Your task to perform on an android device: open chrome and create a bookmark for the current page Image 0: 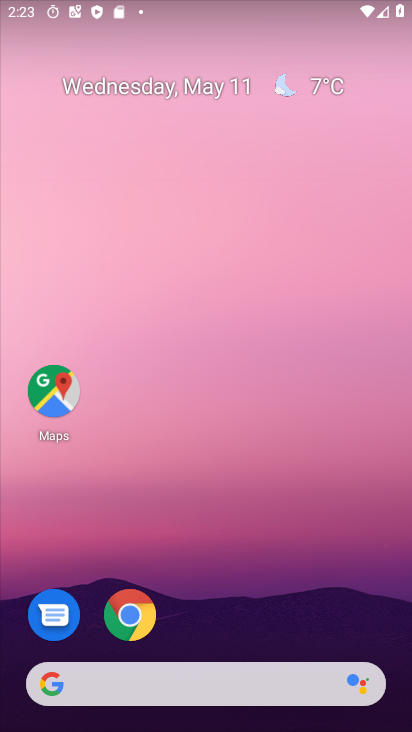
Step 0: click (136, 624)
Your task to perform on an android device: open chrome and create a bookmark for the current page Image 1: 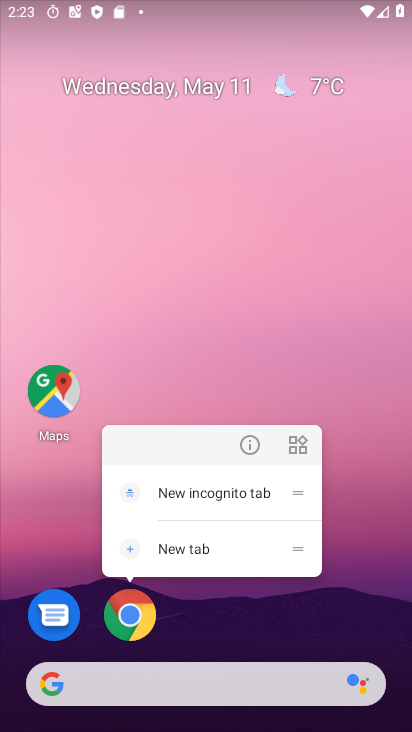
Step 1: click (126, 619)
Your task to perform on an android device: open chrome and create a bookmark for the current page Image 2: 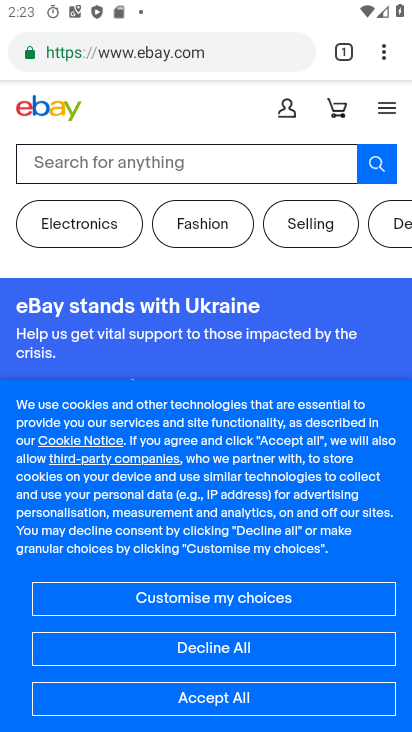
Step 2: click (389, 43)
Your task to perform on an android device: open chrome and create a bookmark for the current page Image 3: 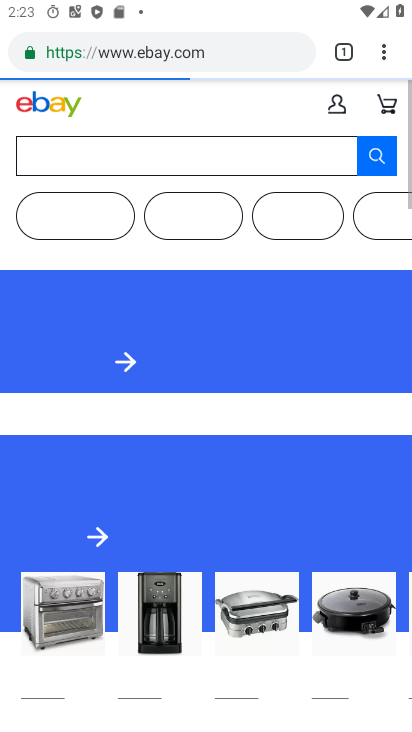
Step 3: click (386, 45)
Your task to perform on an android device: open chrome and create a bookmark for the current page Image 4: 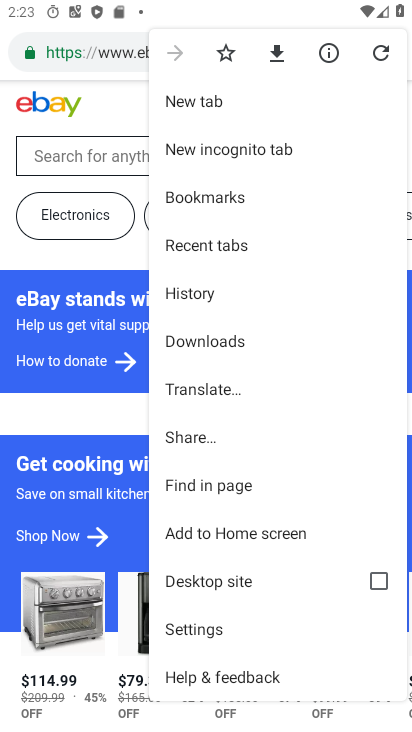
Step 4: click (220, 51)
Your task to perform on an android device: open chrome and create a bookmark for the current page Image 5: 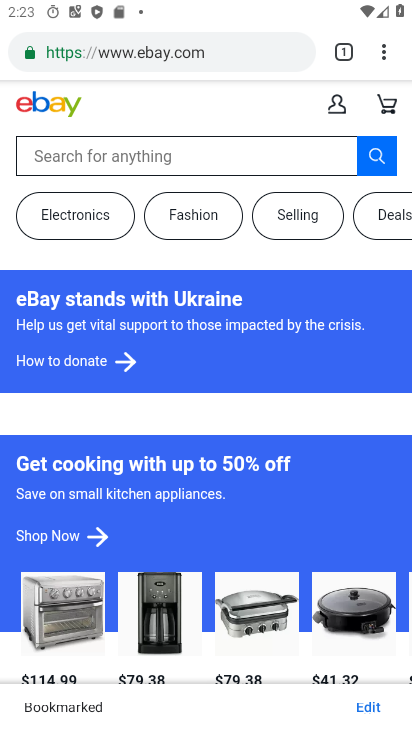
Step 5: task complete